Your task to perform on an android device: turn on improve location accuracy Image 0: 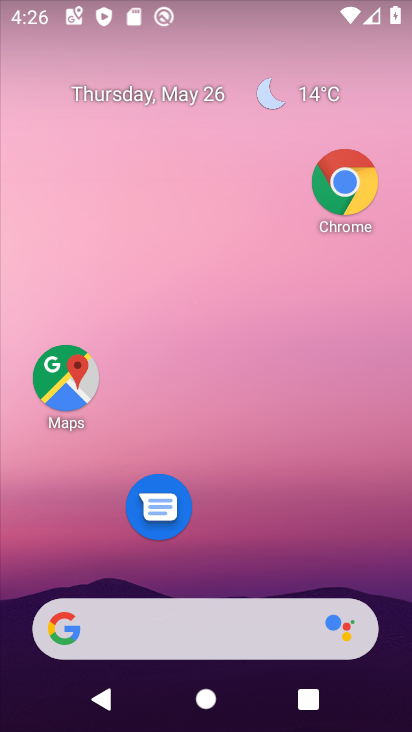
Step 0: drag from (314, 531) to (313, 85)
Your task to perform on an android device: turn on improve location accuracy Image 1: 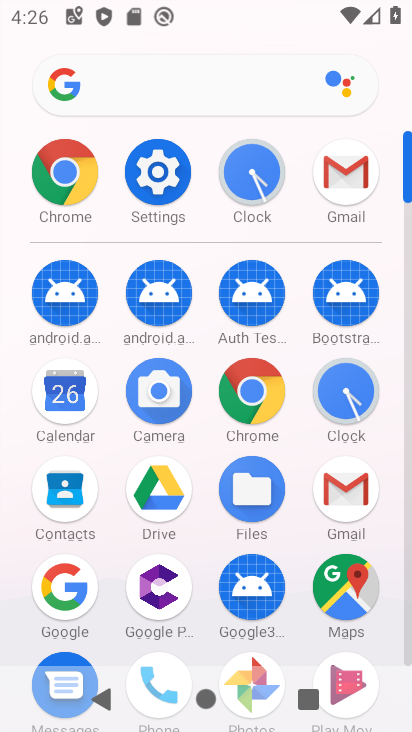
Step 1: click (146, 170)
Your task to perform on an android device: turn on improve location accuracy Image 2: 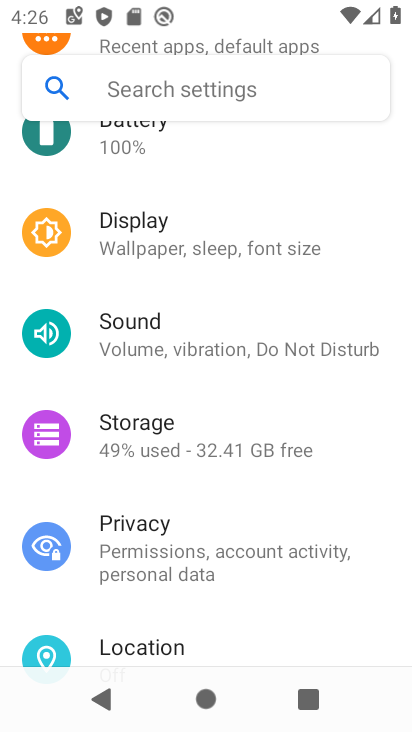
Step 2: click (161, 645)
Your task to perform on an android device: turn on improve location accuracy Image 3: 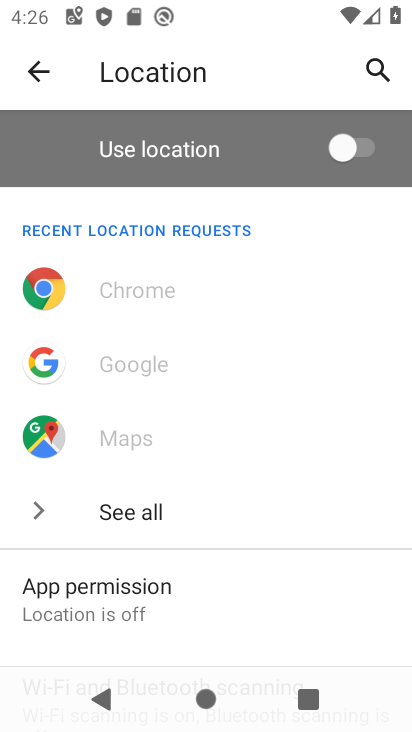
Step 3: drag from (204, 517) to (244, 226)
Your task to perform on an android device: turn on improve location accuracy Image 4: 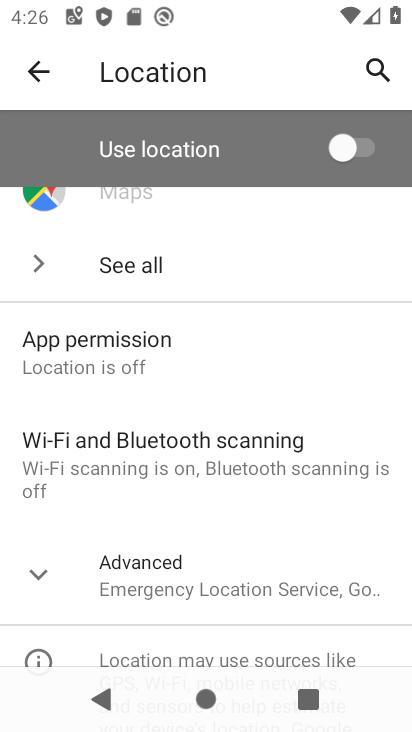
Step 4: click (183, 577)
Your task to perform on an android device: turn on improve location accuracy Image 5: 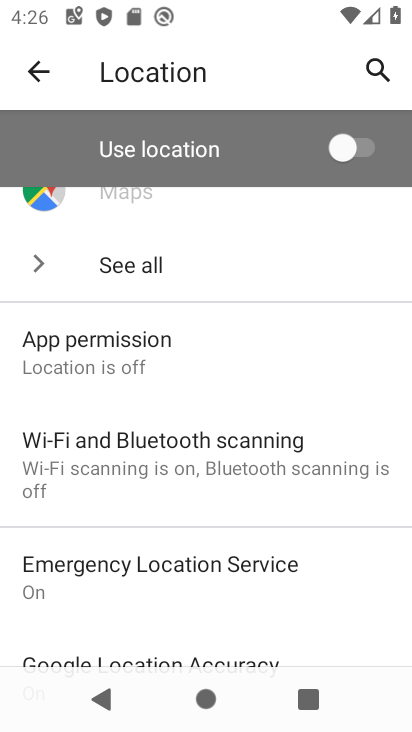
Step 5: drag from (228, 538) to (285, 240)
Your task to perform on an android device: turn on improve location accuracy Image 6: 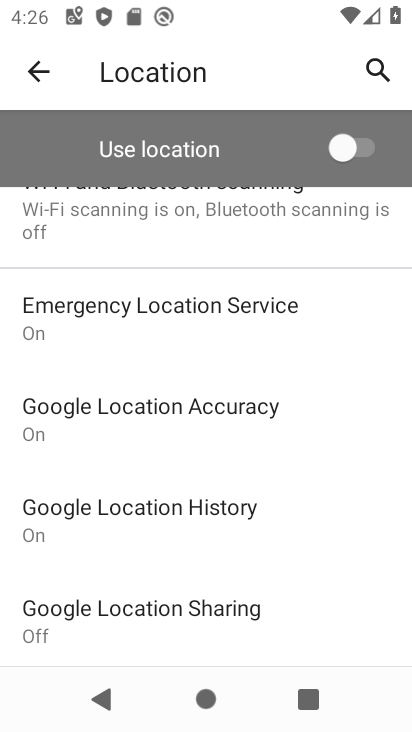
Step 6: click (128, 411)
Your task to perform on an android device: turn on improve location accuracy Image 7: 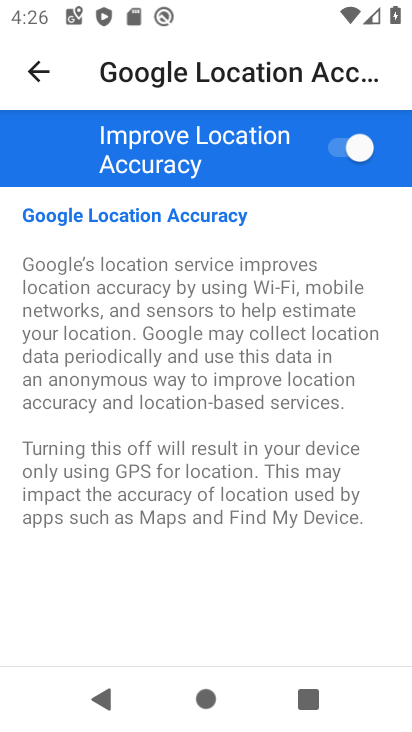
Step 7: task complete